Your task to perform on an android device: What's the weather going to be tomorrow? Image 0: 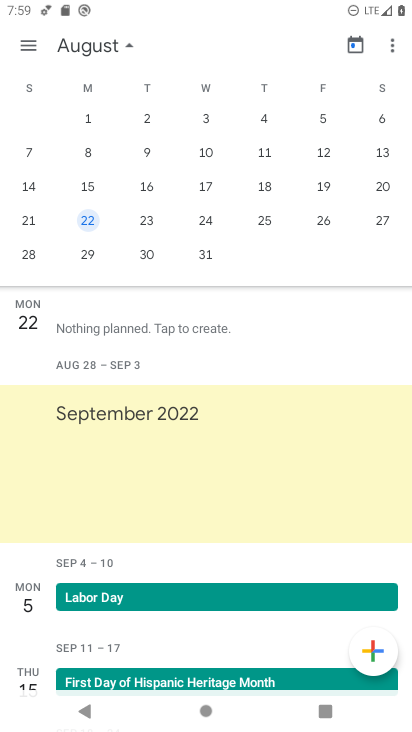
Step 0: press home button
Your task to perform on an android device: What's the weather going to be tomorrow? Image 1: 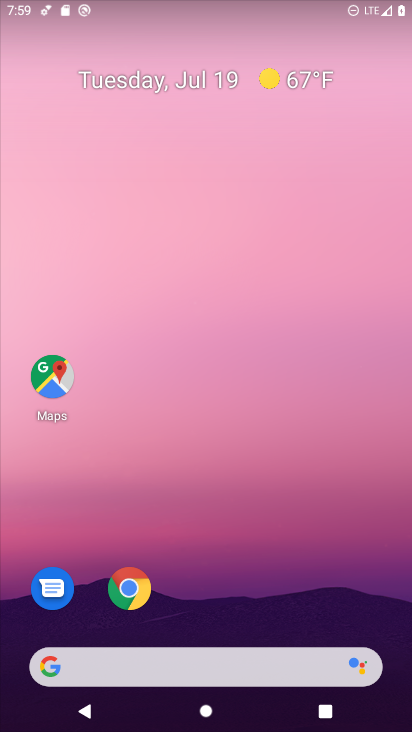
Step 1: click (229, 662)
Your task to perform on an android device: What's the weather going to be tomorrow? Image 2: 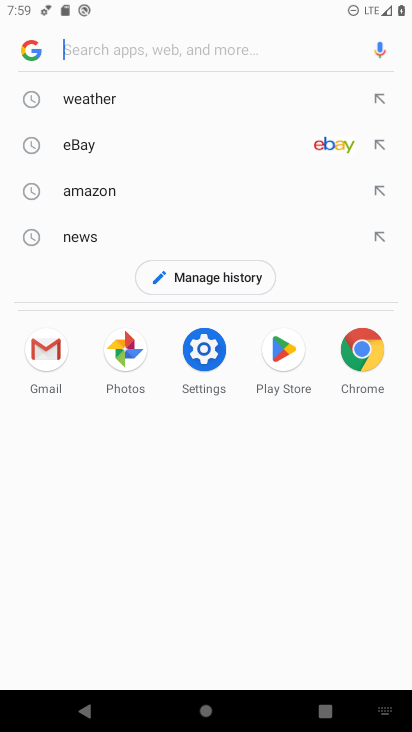
Step 2: click (112, 94)
Your task to perform on an android device: What's the weather going to be tomorrow? Image 3: 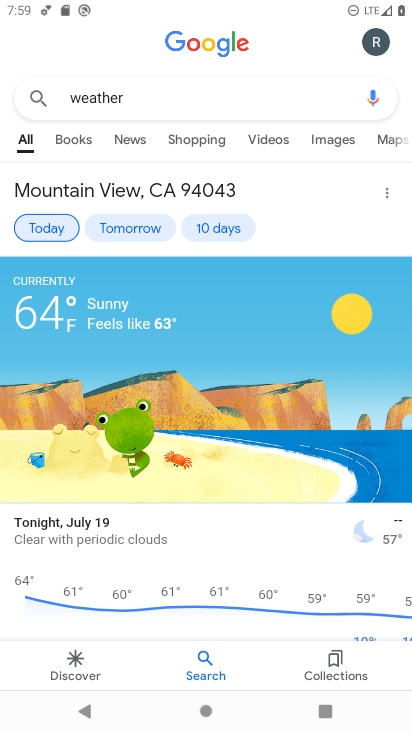
Step 3: click (134, 229)
Your task to perform on an android device: What's the weather going to be tomorrow? Image 4: 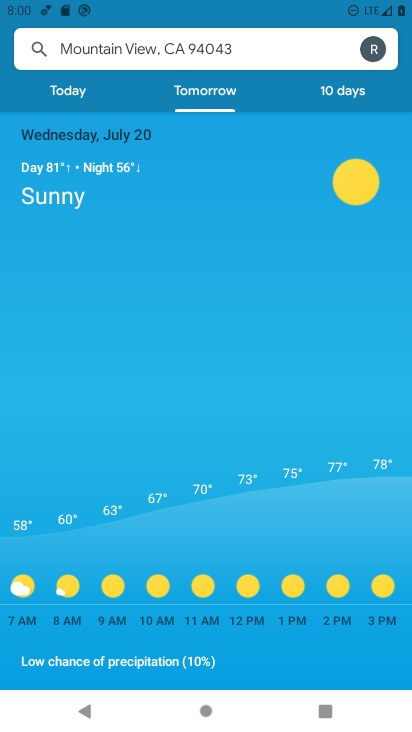
Step 4: task complete